Your task to perform on an android device: Go to Amazon Image 0: 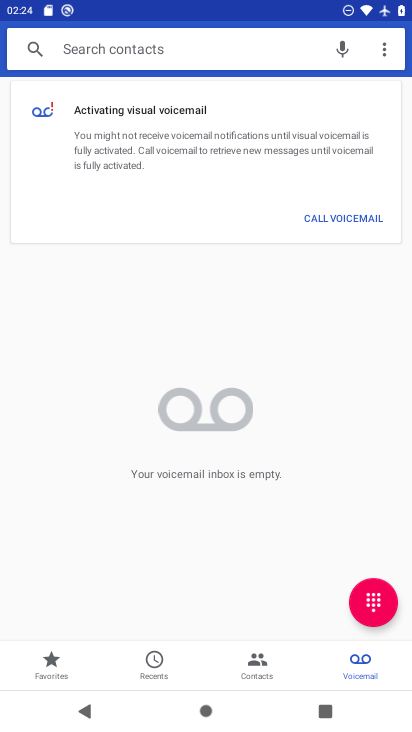
Step 0: press home button
Your task to perform on an android device: Go to Amazon Image 1: 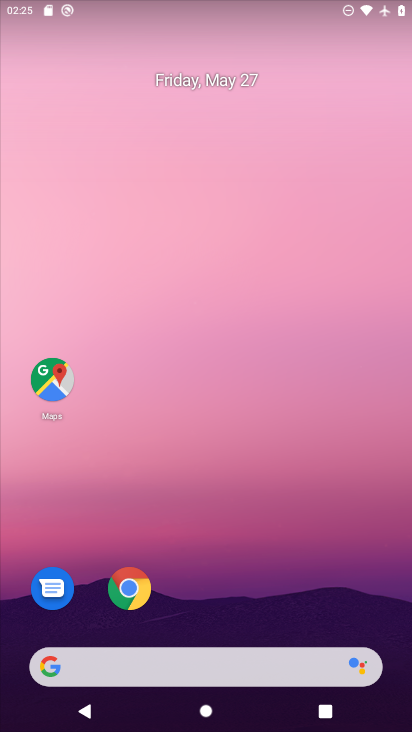
Step 1: click (130, 591)
Your task to perform on an android device: Go to Amazon Image 2: 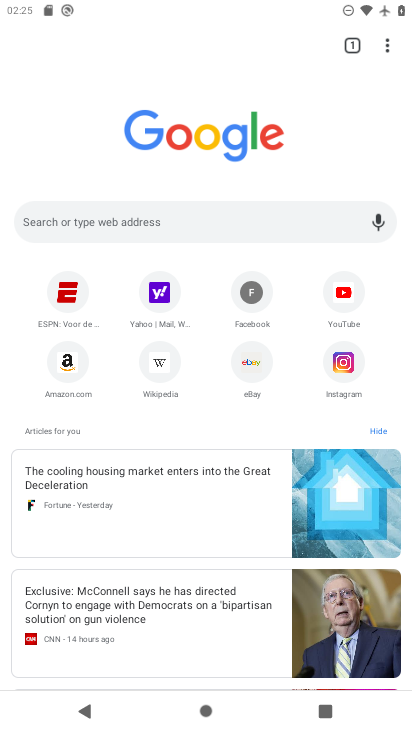
Step 2: click (67, 364)
Your task to perform on an android device: Go to Amazon Image 3: 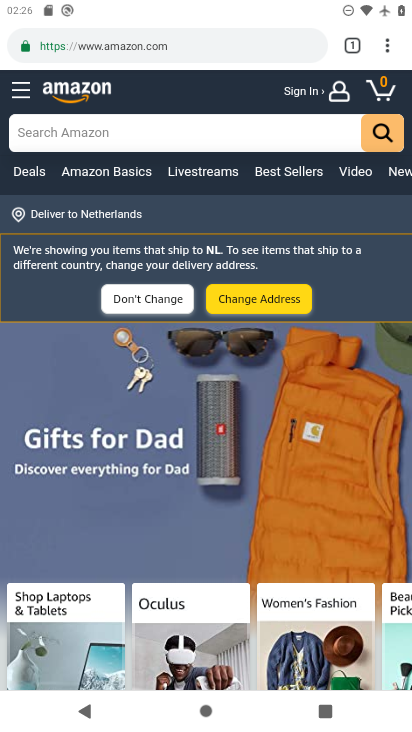
Step 3: task complete